Your task to perform on an android device: remove spam from my inbox in the gmail app Image 0: 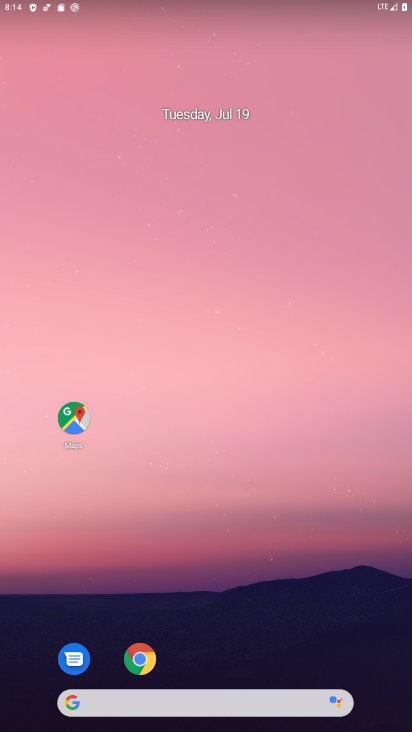
Step 0: press home button
Your task to perform on an android device: remove spam from my inbox in the gmail app Image 1: 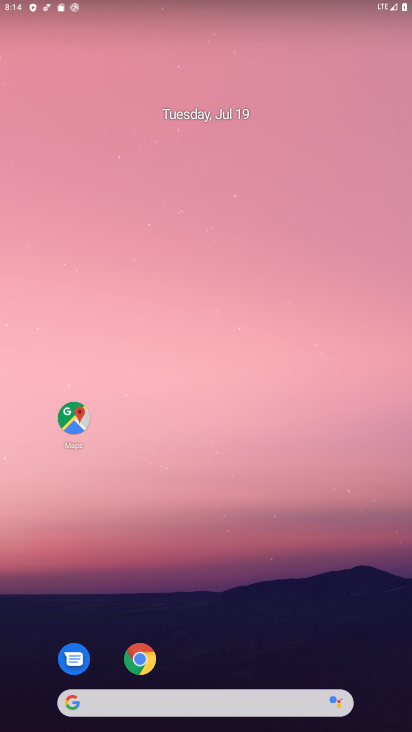
Step 1: drag from (392, 724) to (302, 30)
Your task to perform on an android device: remove spam from my inbox in the gmail app Image 2: 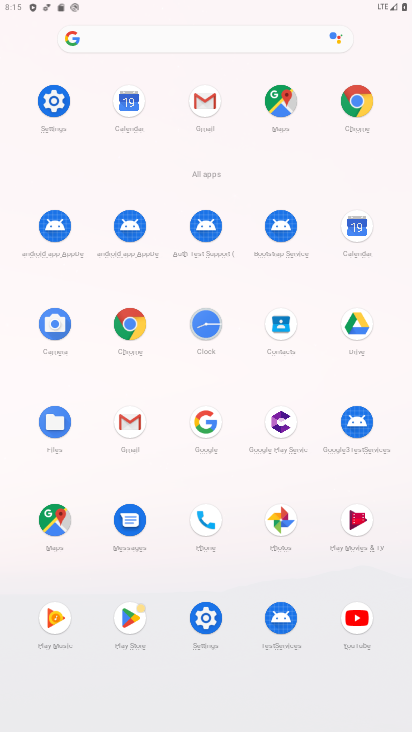
Step 2: click (58, 101)
Your task to perform on an android device: remove spam from my inbox in the gmail app Image 3: 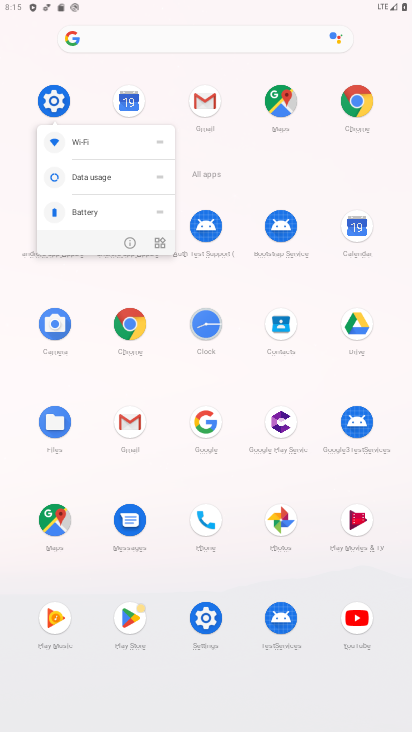
Step 3: click (64, 101)
Your task to perform on an android device: remove spam from my inbox in the gmail app Image 4: 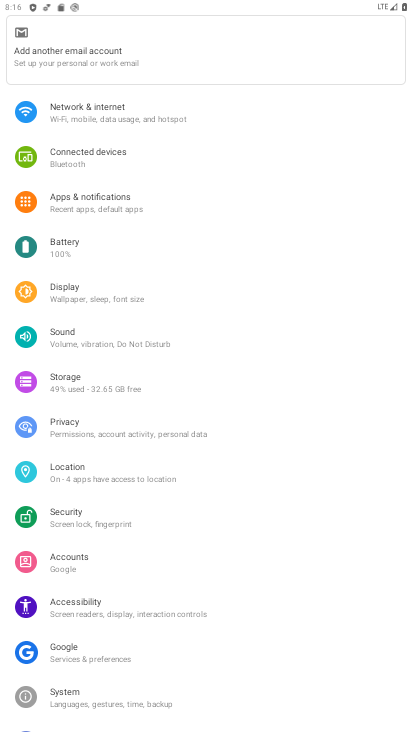
Step 4: press home button
Your task to perform on an android device: remove spam from my inbox in the gmail app Image 5: 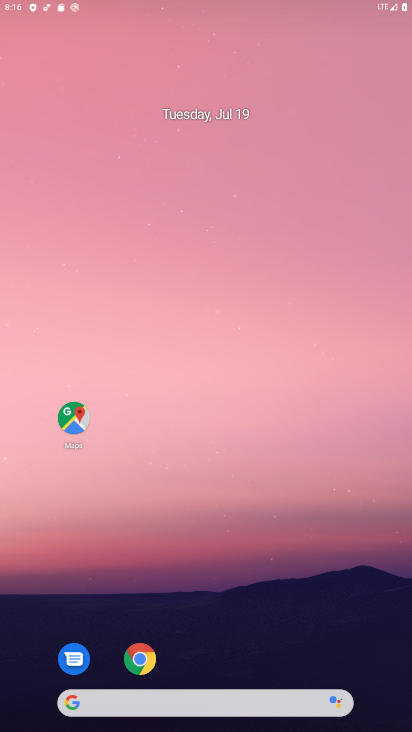
Step 5: drag from (254, 501) to (252, 56)
Your task to perform on an android device: remove spam from my inbox in the gmail app Image 6: 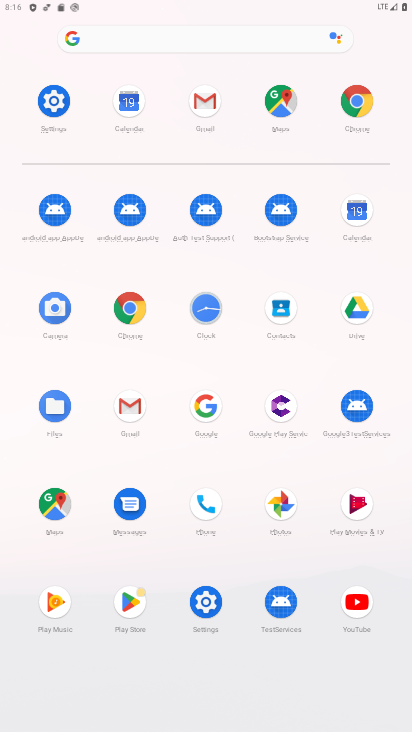
Step 6: click (129, 406)
Your task to perform on an android device: remove spam from my inbox in the gmail app Image 7: 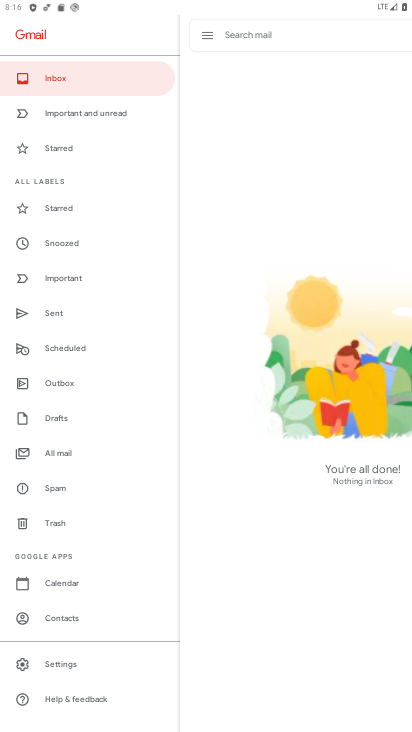
Step 7: task complete